Your task to perform on an android device: toggle data saver in the chrome app Image 0: 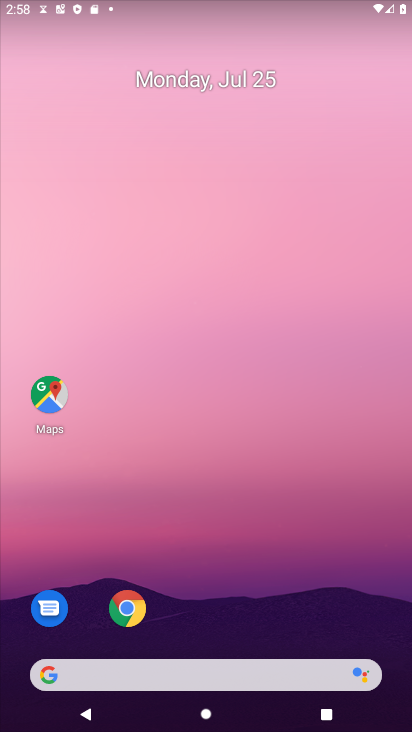
Step 0: drag from (196, 592) to (197, 28)
Your task to perform on an android device: toggle data saver in the chrome app Image 1: 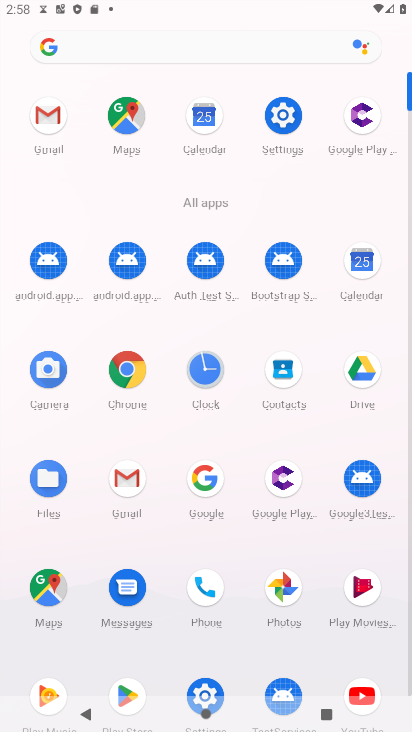
Step 1: click (129, 392)
Your task to perform on an android device: toggle data saver in the chrome app Image 2: 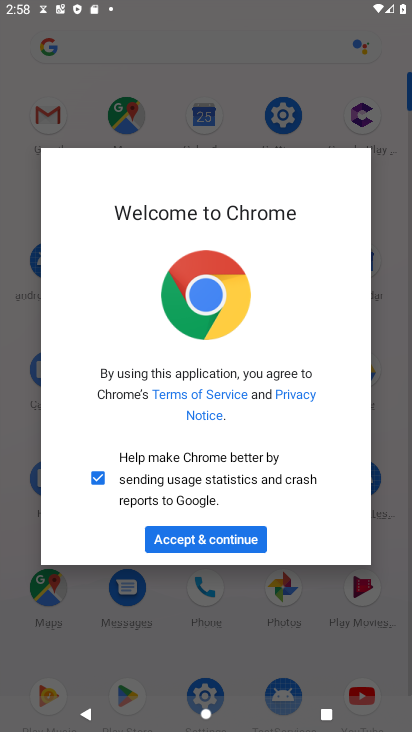
Step 2: click (201, 541)
Your task to perform on an android device: toggle data saver in the chrome app Image 3: 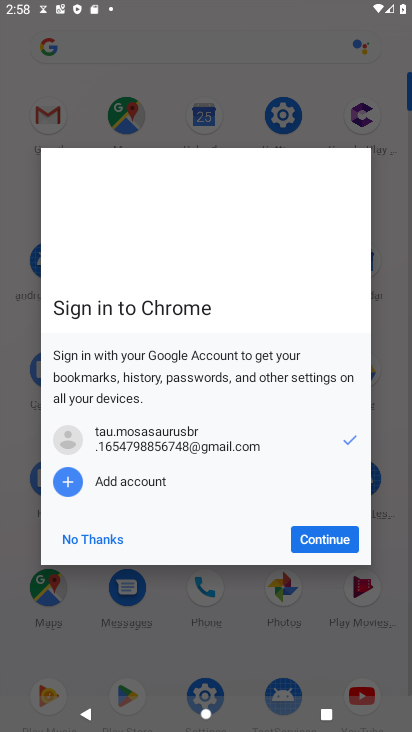
Step 3: click (313, 539)
Your task to perform on an android device: toggle data saver in the chrome app Image 4: 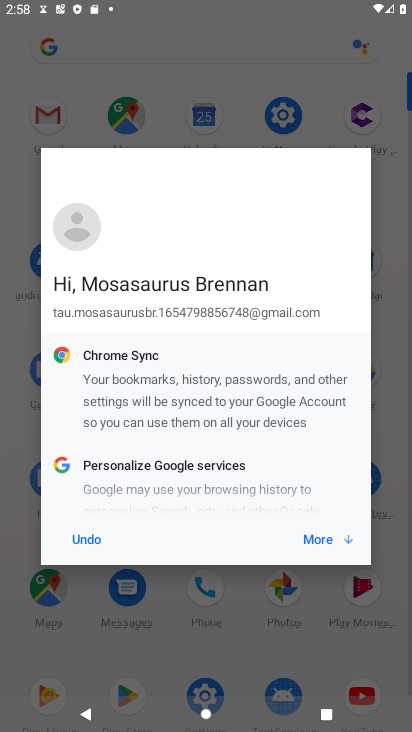
Step 4: click (320, 534)
Your task to perform on an android device: toggle data saver in the chrome app Image 5: 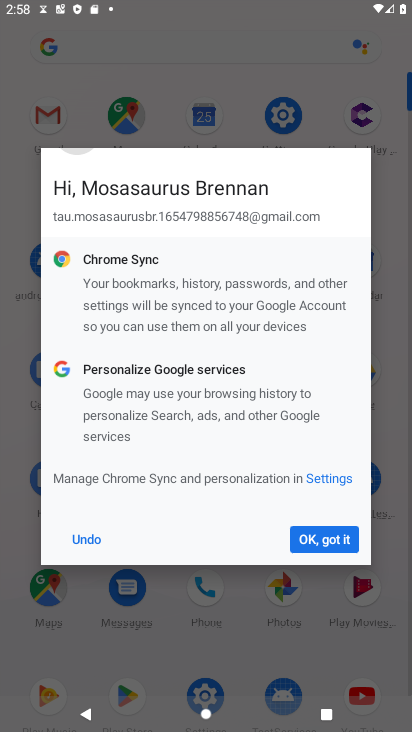
Step 5: click (318, 548)
Your task to perform on an android device: toggle data saver in the chrome app Image 6: 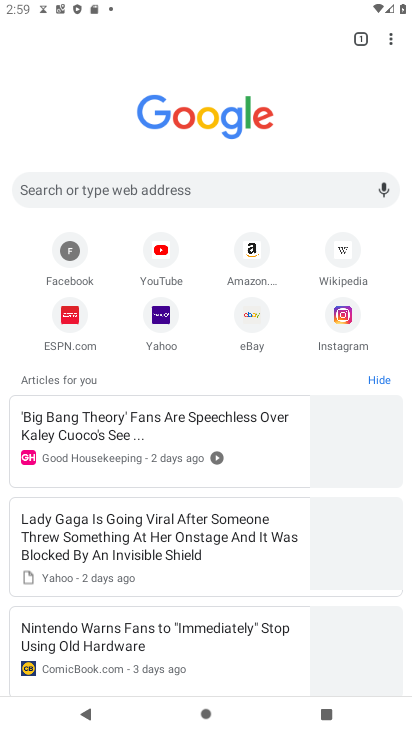
Step 6: click (401, 22)
Your task to perform on an android device: toggle data saver in the chrome app Image 7: 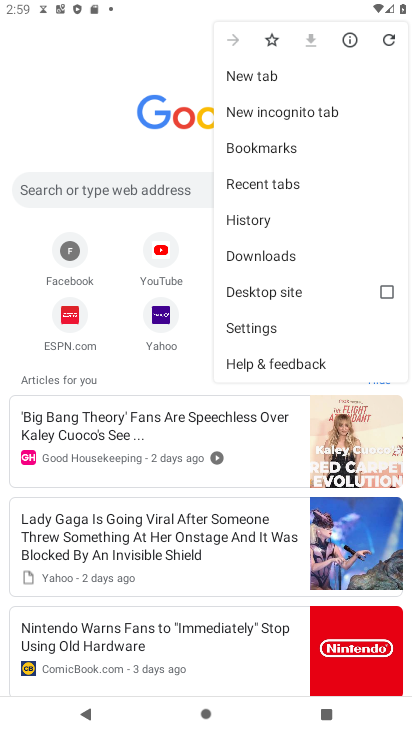
Step 7: click (252, 323)
Your task to perform on an android device: toggle data saver in the chrome app Image 8: 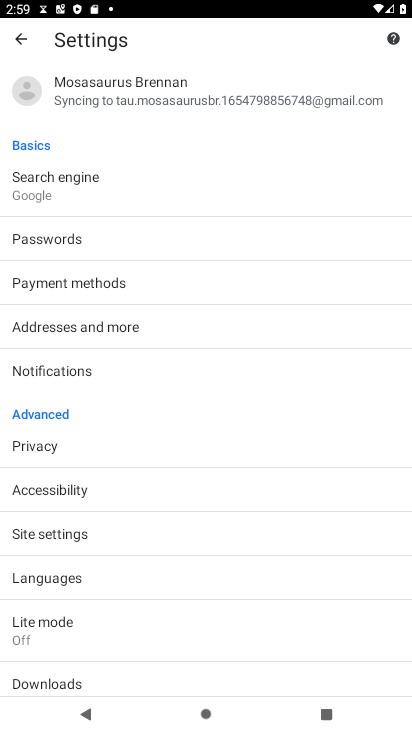
Step 8: drag from (95, 617) to (92, 391)
Your task to perform on an android device: toggle data saver in the chrome app Image 9: 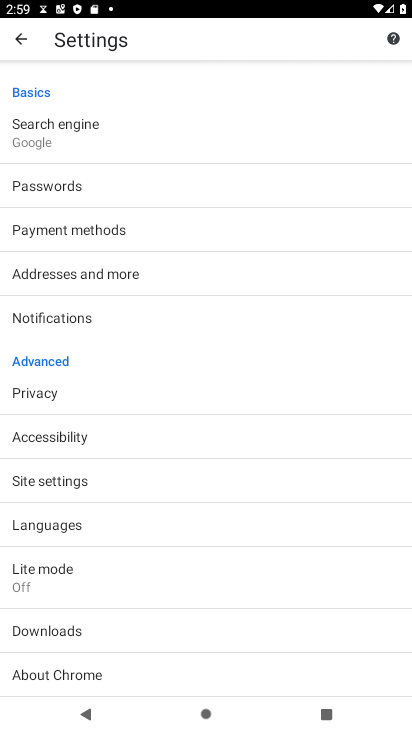
Step 9: click (57, 576)
Your task to perform on an android device: toggle data saver in the chrome app Image 10: 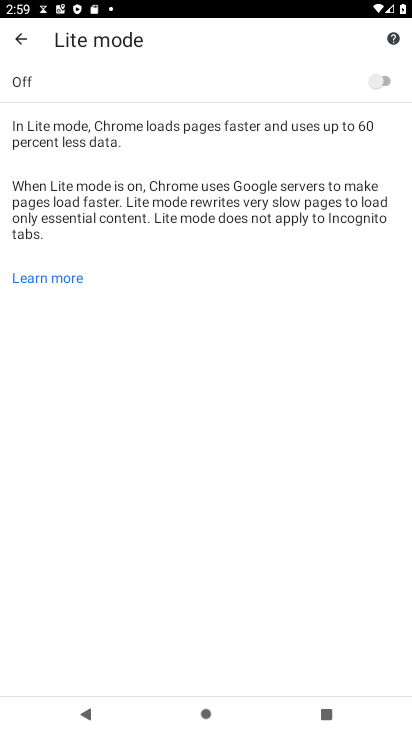
Step 10: click (362, 87)
Your task to perform on an android device: toggle data saver in the chrome app Image 11: 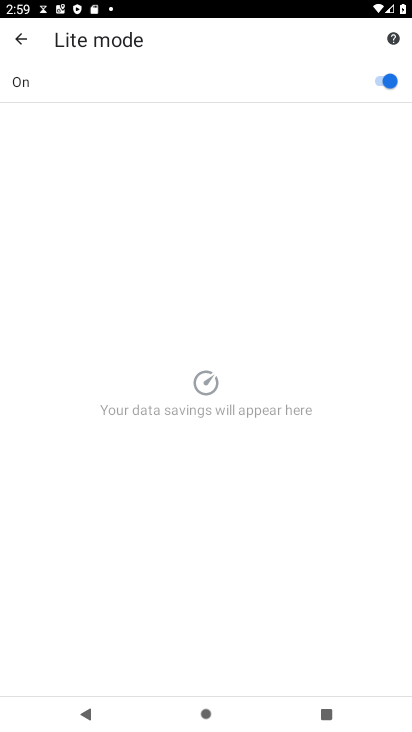
Step 11: task complete